Your task to perform on an android device: Open CNN.com Image 0: 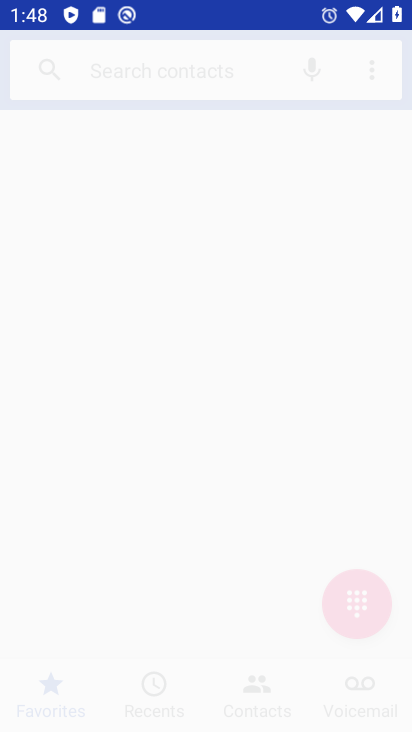
Step 0: drag from (336, 610) to (358, 207)
Your task to perform on an android device: Open CNN.com Image 1: 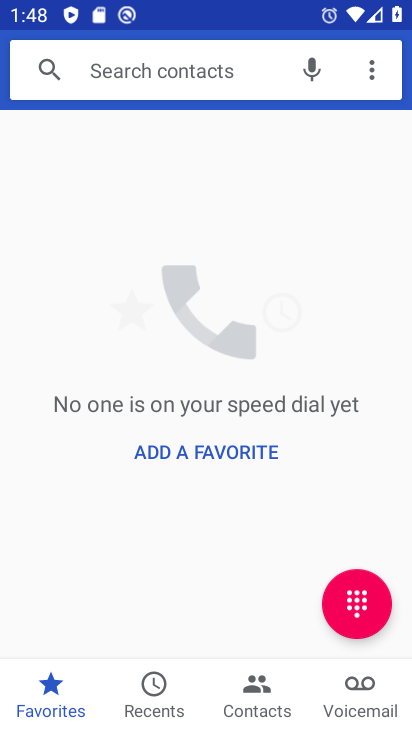
Step 1: press home button
Your task to perform on an android device: Open CNN.com Image 2: 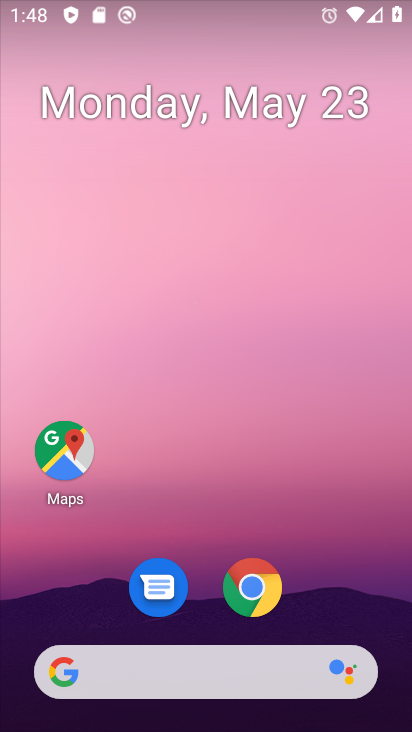
Step 2: click (229, 655)
Your task to perform on an android device: Open CNN.com Image 3: 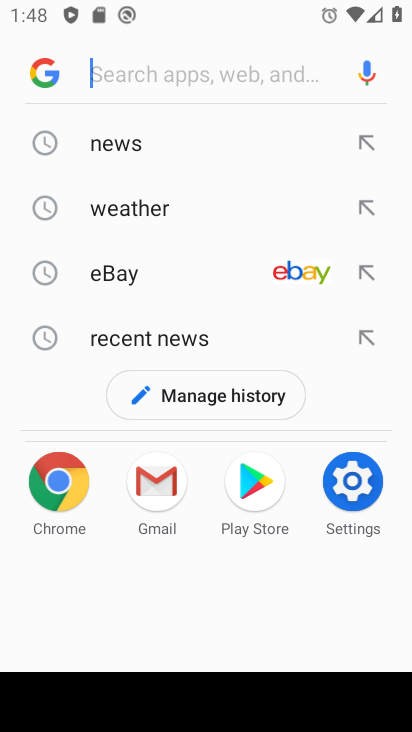
Step 3: type "cnn"
Your task to perform on an android device: Open CNN.com Image 4: 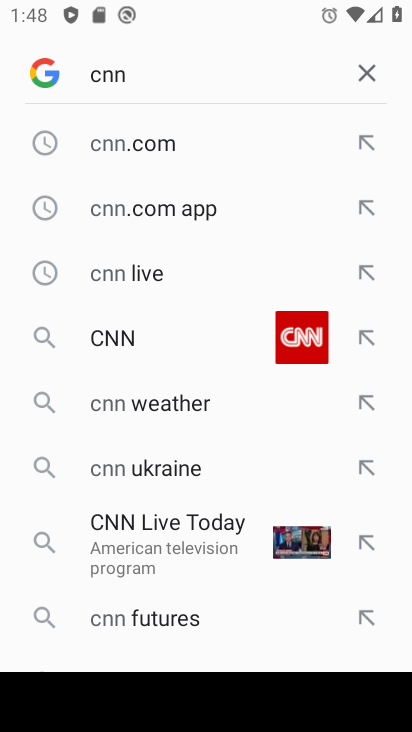
Step 4: click (104, 169)
Your task to perform on an android device: Open CNN.com Image 5: 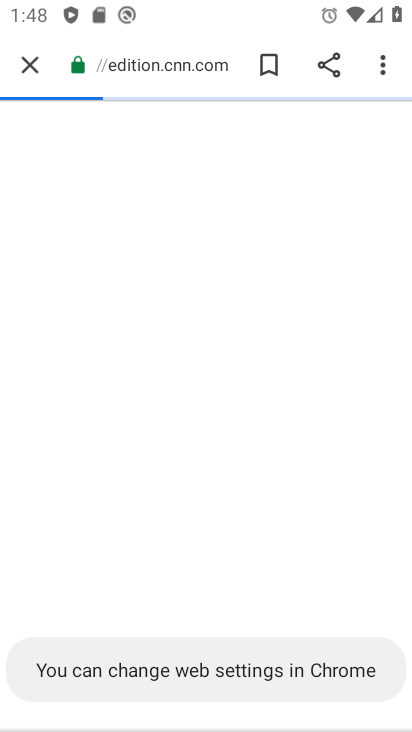
Step 5: task complete